Your task to perform on an android device: Go to display settings Image 0: 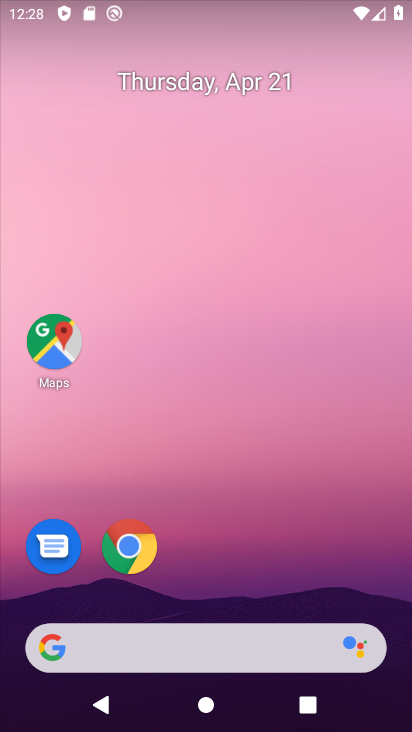
Step 0: drag from (300, 562) to (268, 138)
Your task to perform on an android device: Go to display settings Image 1: 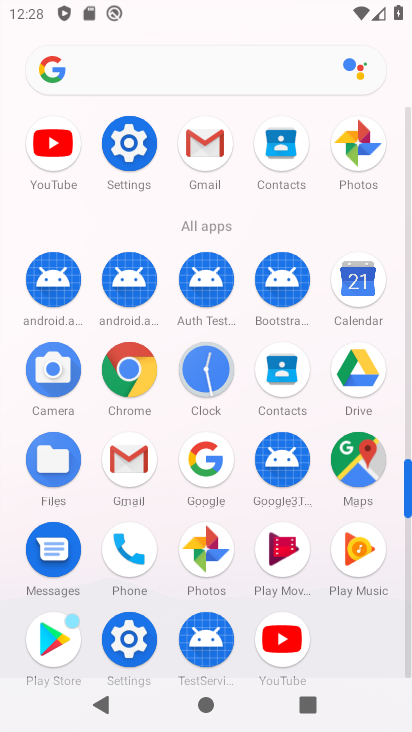
Step 1: click (130, 156)
Your task to perform on an android device: Go to display settings Image 2: 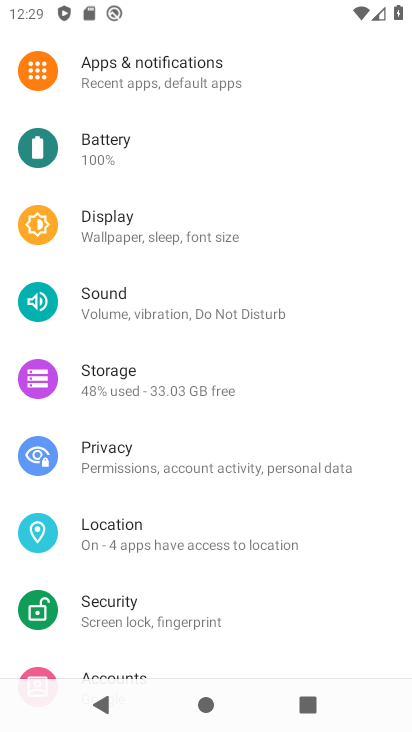
Step 2: click (171, 228)
Your task to perform on an android device: Go to display settings Image 3: 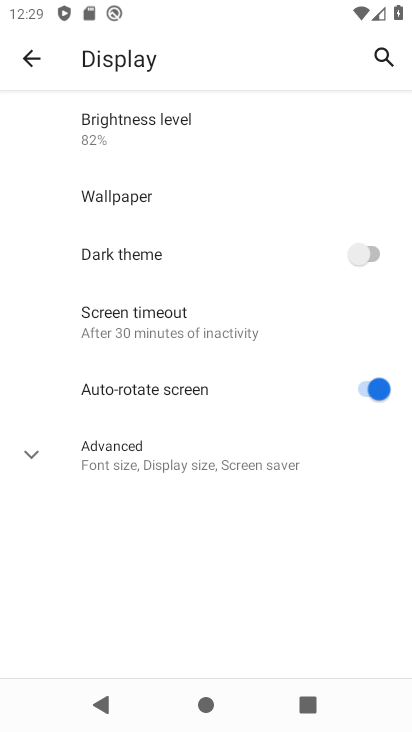
Step 3: task complete